Your task to perform on an android device: turn on improve location accuracy Image 0: 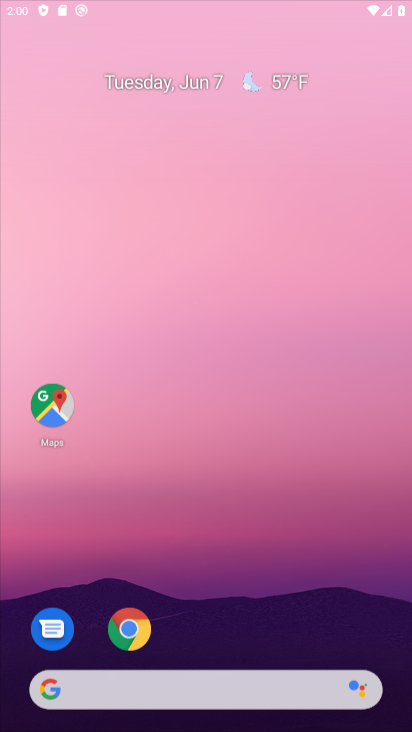
Step 0: click (321, 126)
Your task to perform on an android device: turn on improve location accuracy Image 1: 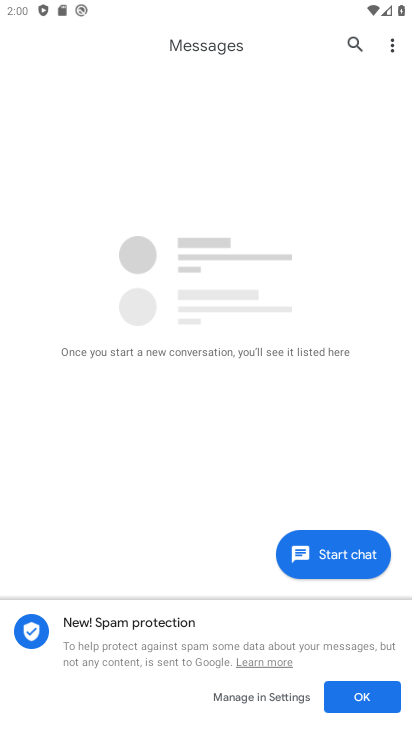
Step 1: press home button
Your task to perform on an android device: turn on improve location accuracy Image 2: 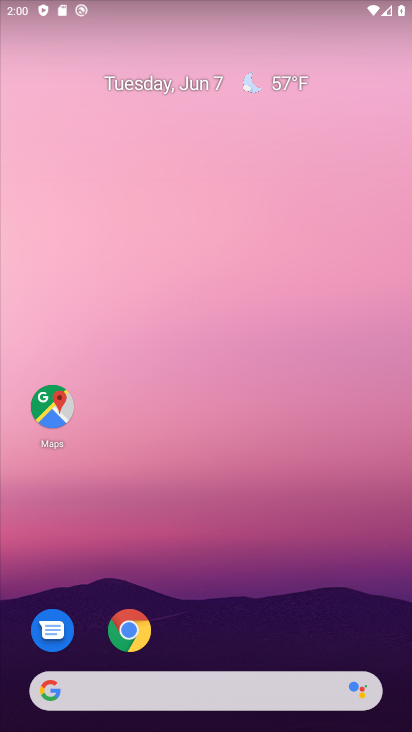
Step 2: drag from (379, 625) to (278, 27)
Your task to perform on an android device: turn on improve location accuracy Image 3: 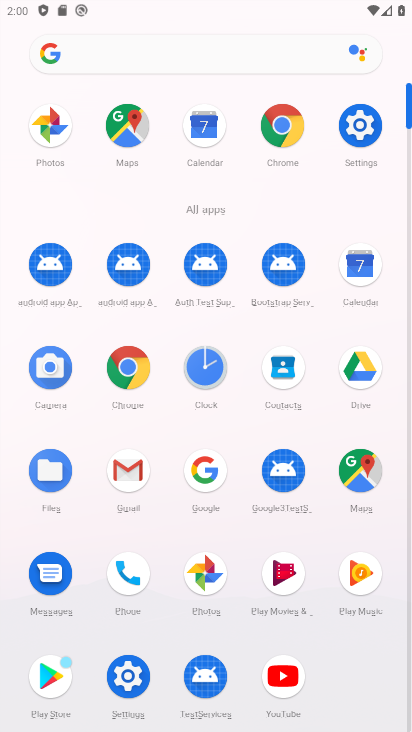
Step 3: click (370, 127)
Your task to perform on an android device: turn on improve location accuracy Image 4: 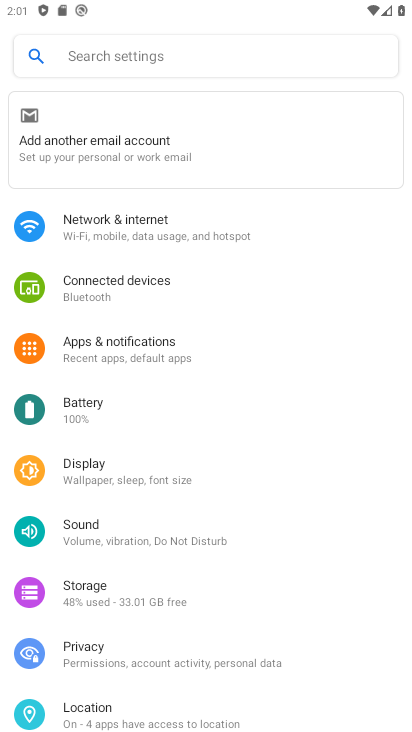
Step 4: click (85, 710)
Your task to perform on an android device: turn on improve location accuracy Image 5: 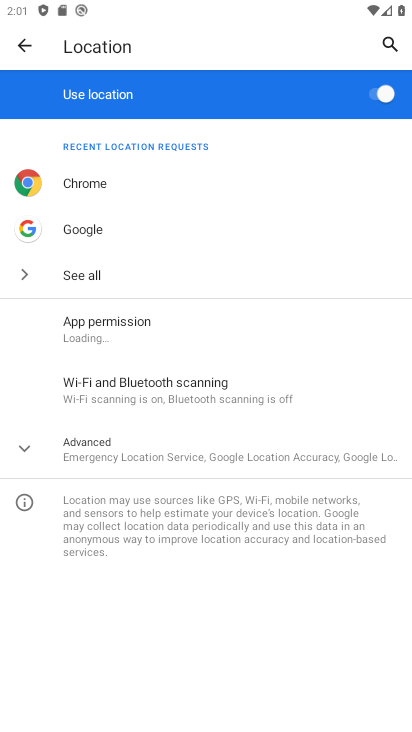
Step 5: click (44, 458)
Your task to perform on an android device: turn on improve location accuracy Image 6: 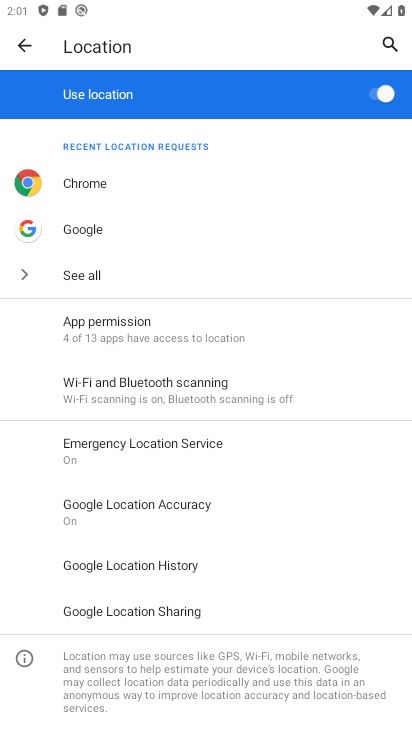
Step 6: click (145, 500)
Your task to perform on an android device: turn on improve location accuracy Image 7: 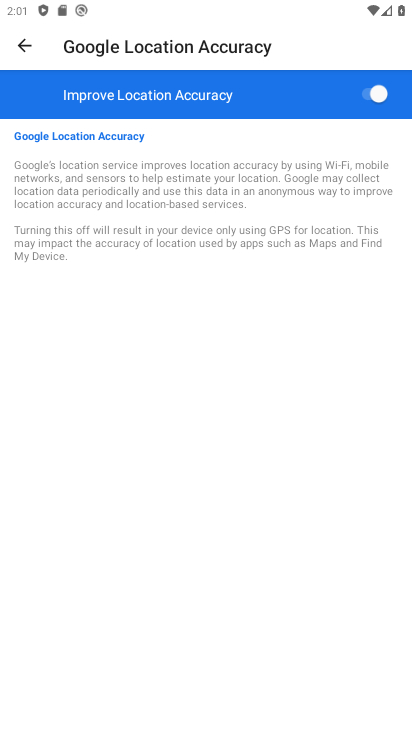
Step 7: task complete